Your task to perform on an android device: clear all cookies in the chrome app Image 0: 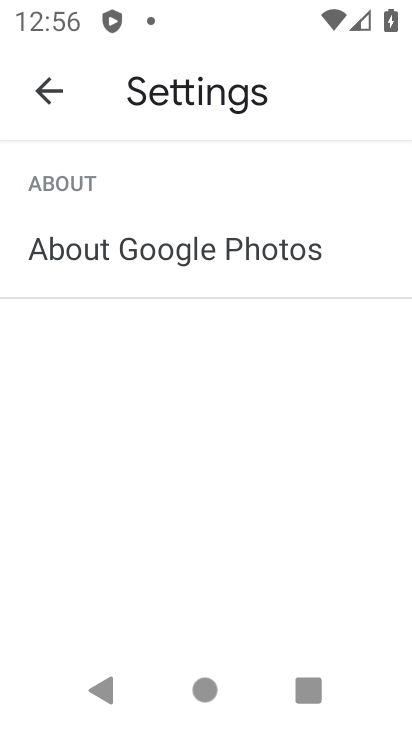
Step 0: press home button
Your task to perform on an android device: clear all cookies in the chrome app Image 1: 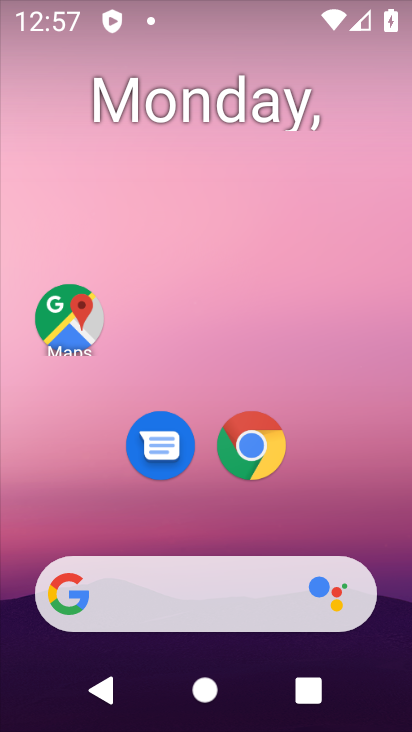
Step 1: click (255, 447)
Your task to perform on an android device: clear all cookies in the chrome app Image 2: 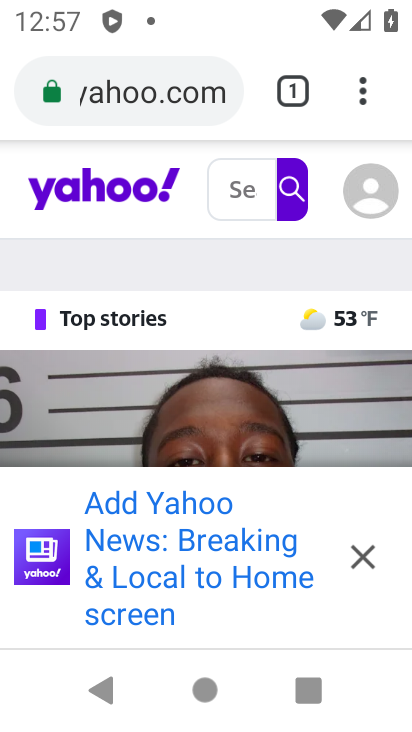
Step 2: click (360, 91)
Your task to perform on an android device: clear all cookies in the chrome app Image 3: 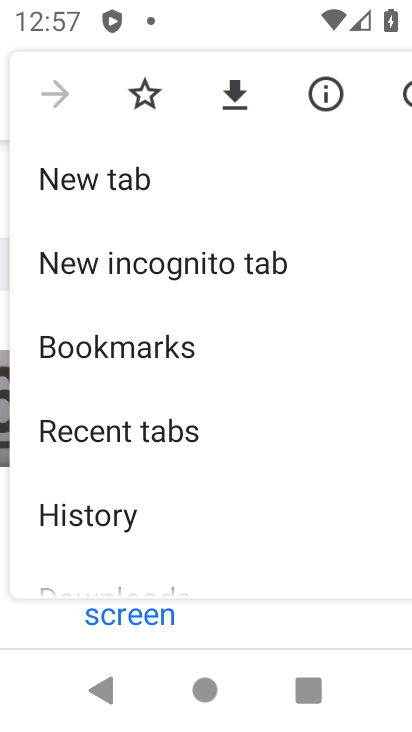
Step 3: click (86, 511)
Your task to perform on an android device: clear all cookies in the chrome app Image 4: 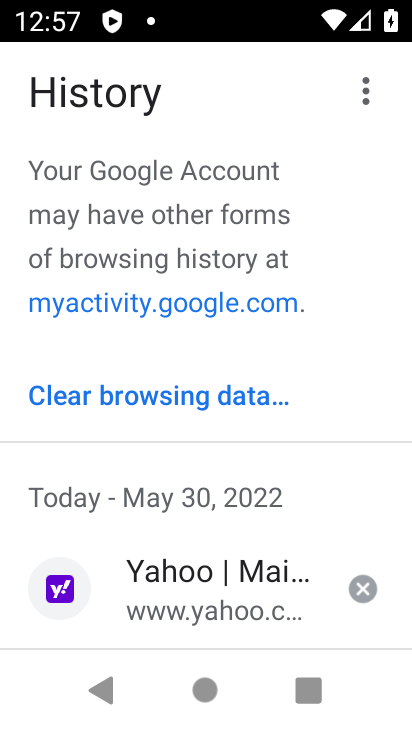
Step 4: click (137, 392)
Your task to perform on an android device: clear all cookies in the chrome app Image 5: 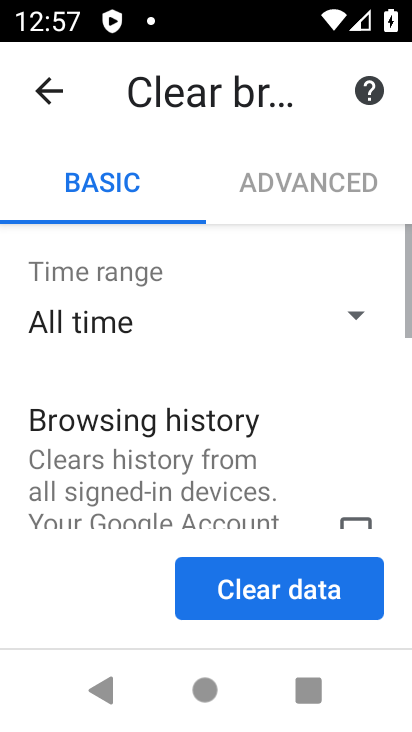
Step 5: drag from (248, 485) to (237, 152)
Your task to perform on an android device: clear all cookies in the chrome app Image 6: 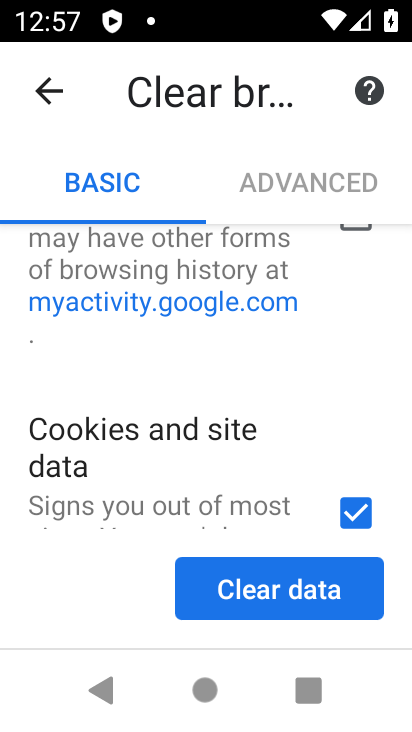
Step 6: drag from (300, 453) to (299, 90)
Your task to perform on an android device: clear all cookies in the chrome app Image 7: 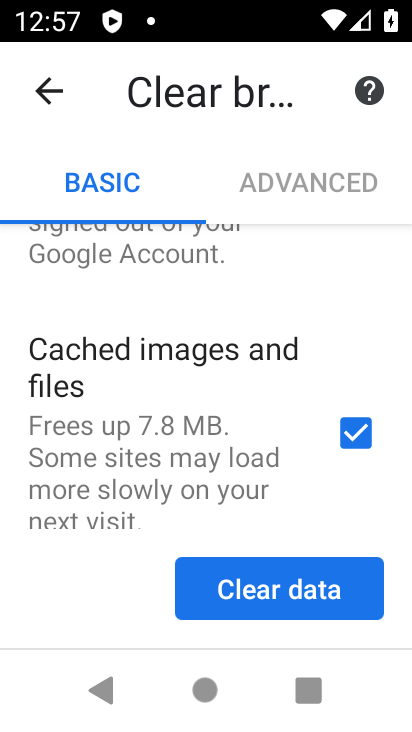
Step 7: click (341, 436)
Your task to perform on an android device: clear all cookies in the chrome app Image 8: 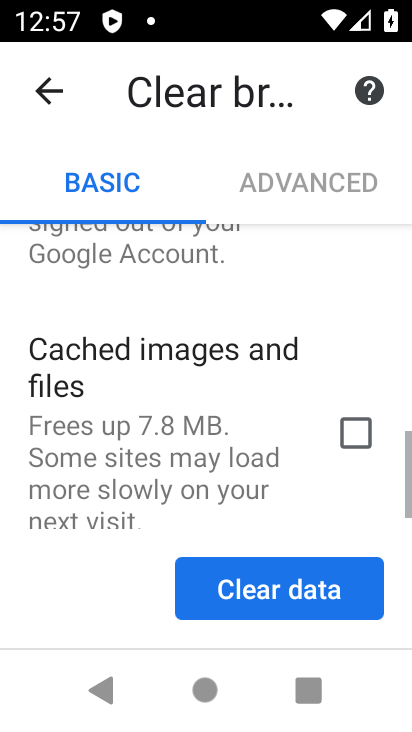
Step 8: click (247, 590)
Your task to perform on an android device: clear all cookies in the chrome app Image 9: 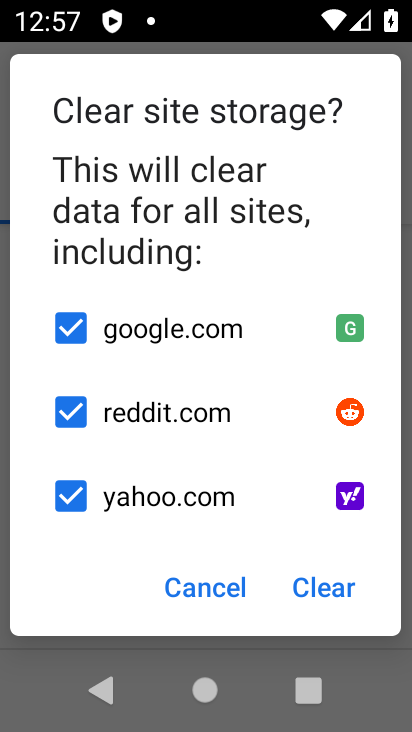
Step 9: click (330, 586)
Your task to perform on an android device: clear all cookies in the chrome app Image 10: 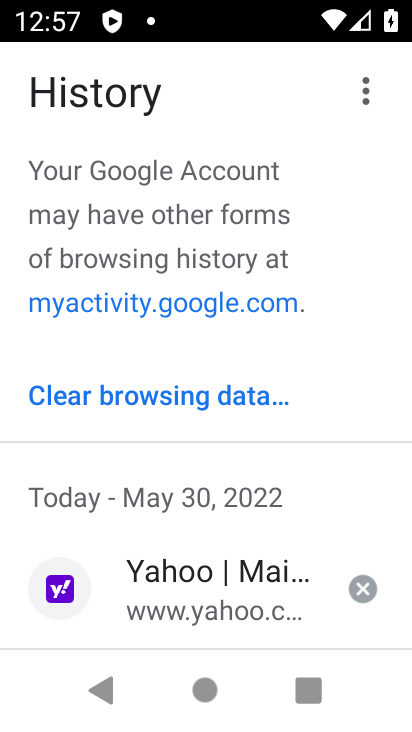
Step 10: task complete